Your task to perform on an android device: Open Google Maps Image 0: 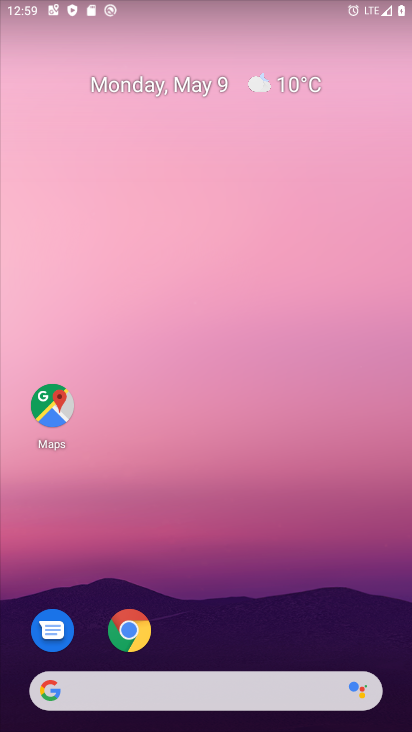
Step 0: drag from (308, 623) to (297, 93)
Your task to perform on an android device: Open Google Maps Image 1: 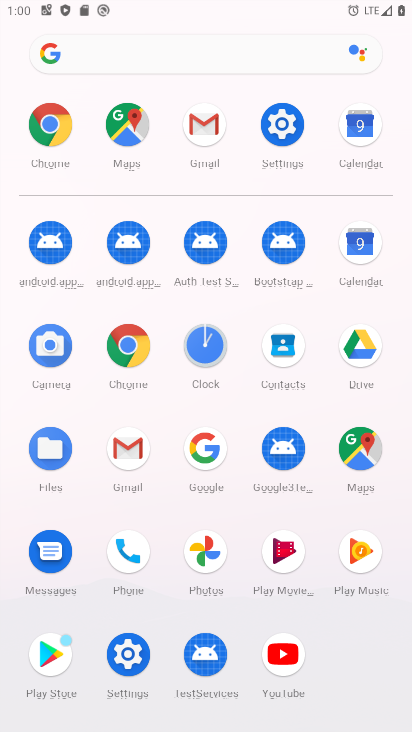
Step 1: click (358, 444)
Your task to perform on an android device: Open Google Maps Image 2: 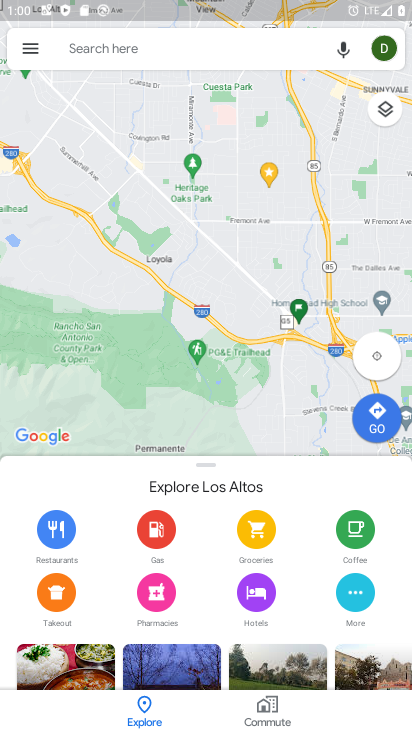
Step 2: task complete